Your task to perform on an android device: open app "Pluto TV - Live TV and Movies" (install if not already installed) Image 0: 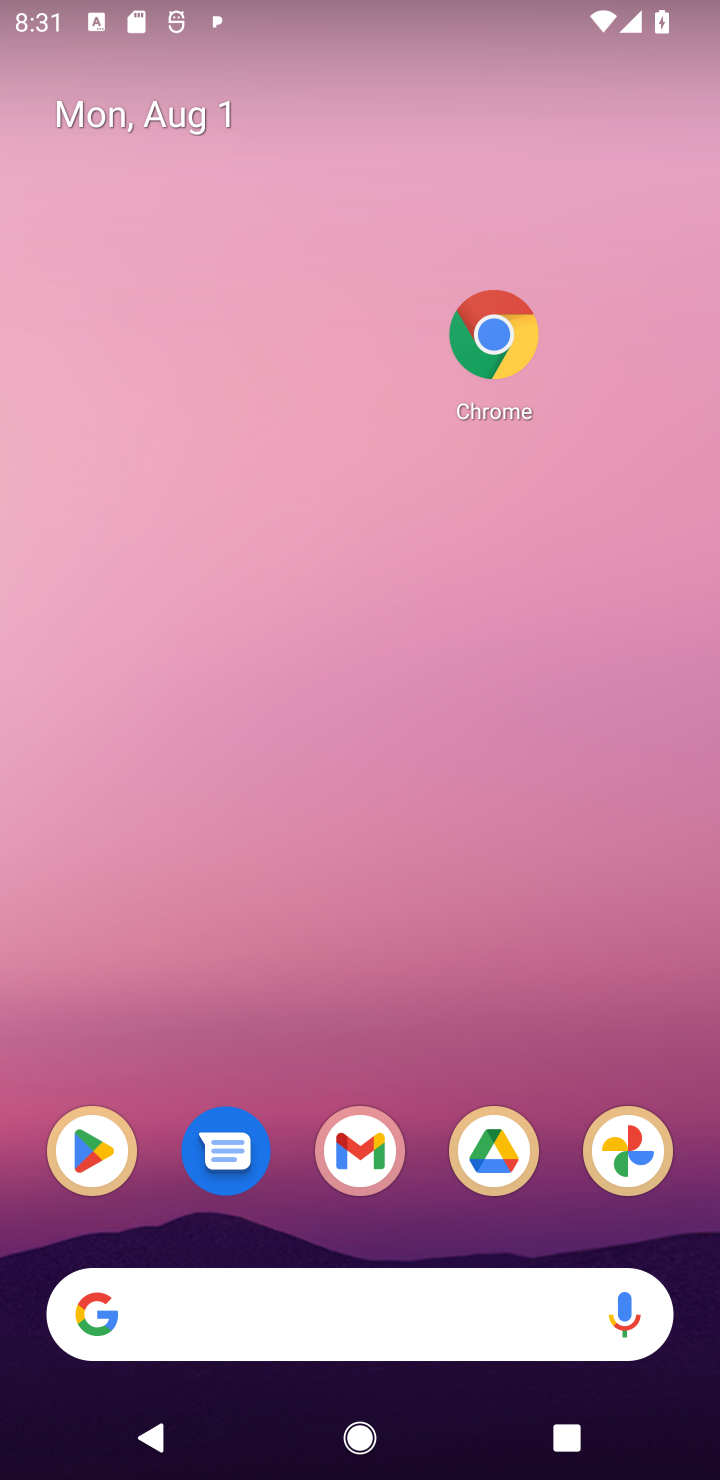
Step 0: click (93, 1167)
Your task to perform on an android device: open app "Pluto TV - Live TV and Movies" (install if not already installed) Image 1: 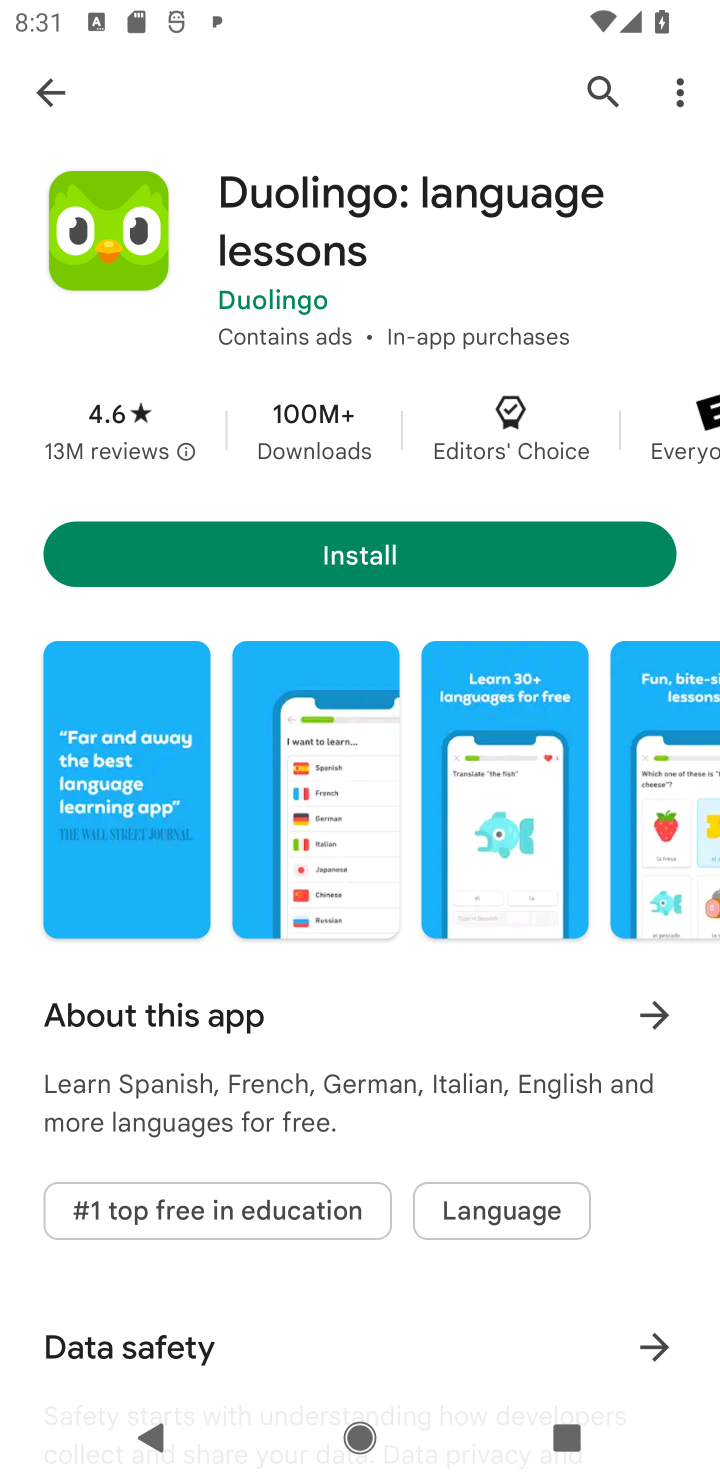
Step 1: click (598, 80)
Your task to perform on an android device: open app "Pluto TV - Live TV and Movies" (install if not already installed) Image 2: 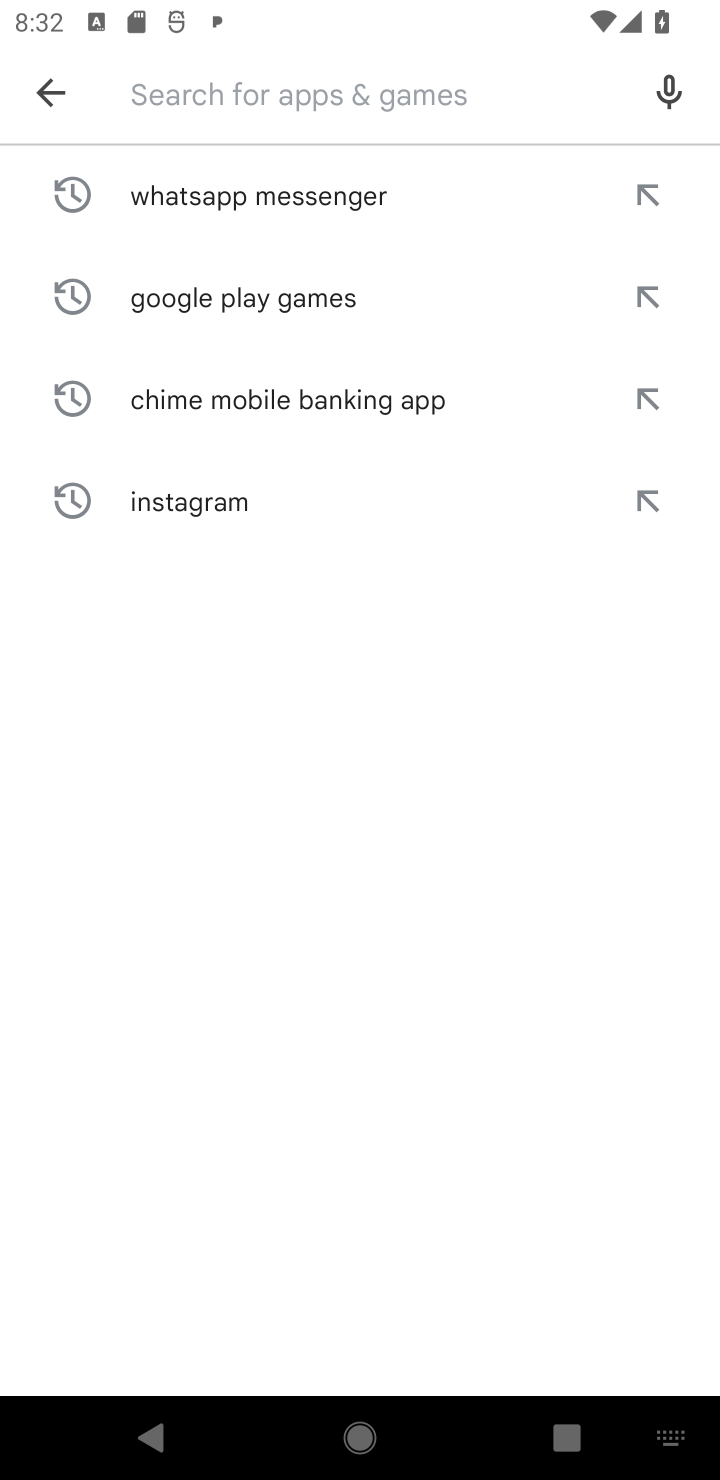
Step 2: type "Pluto TV - Live TV and Movies"
Your task to perform on an android device: open app "Pluto TV - Live TV and Movies" (install if not already installed) Image 3: 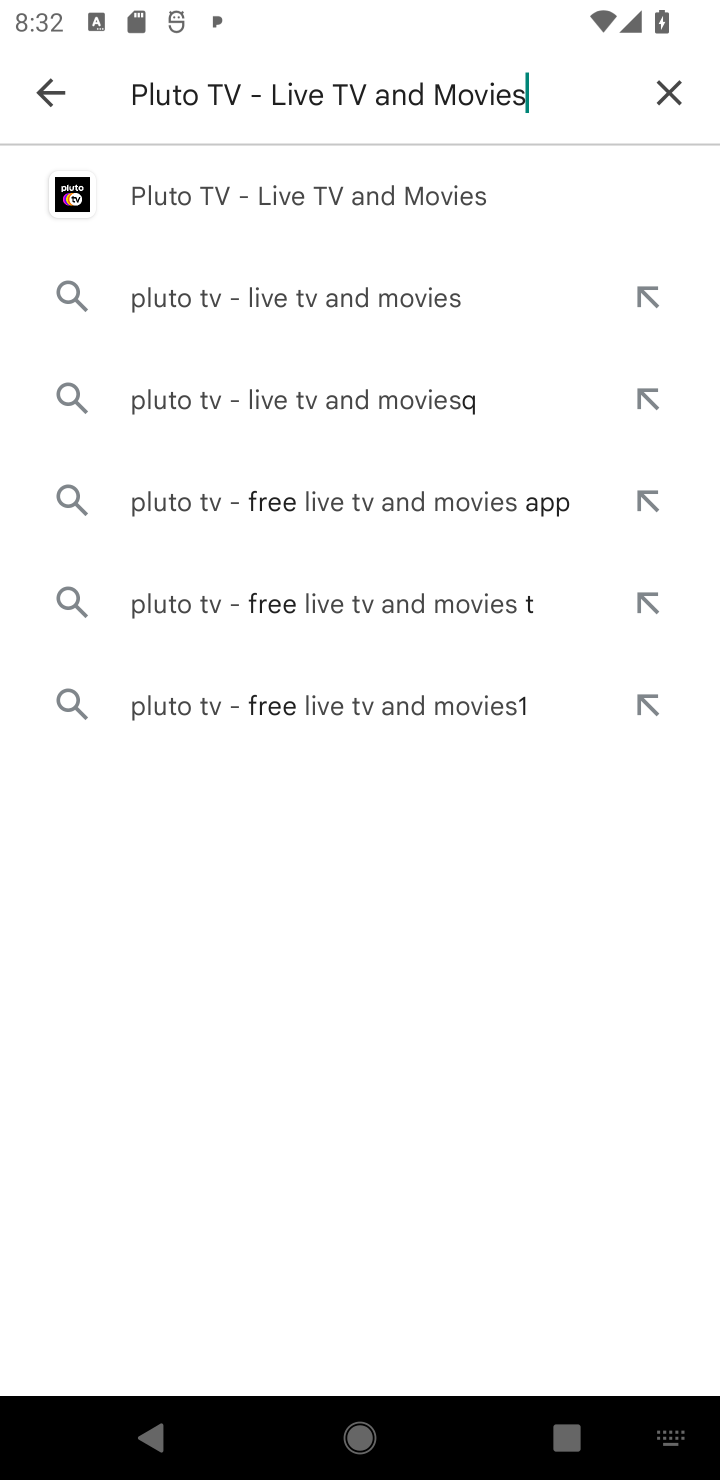
Step 3: click (233, 194)
Your task to perform on an android device: open app "Pluto TV - Live TV and Movies" (install if not already installed) Image 4: 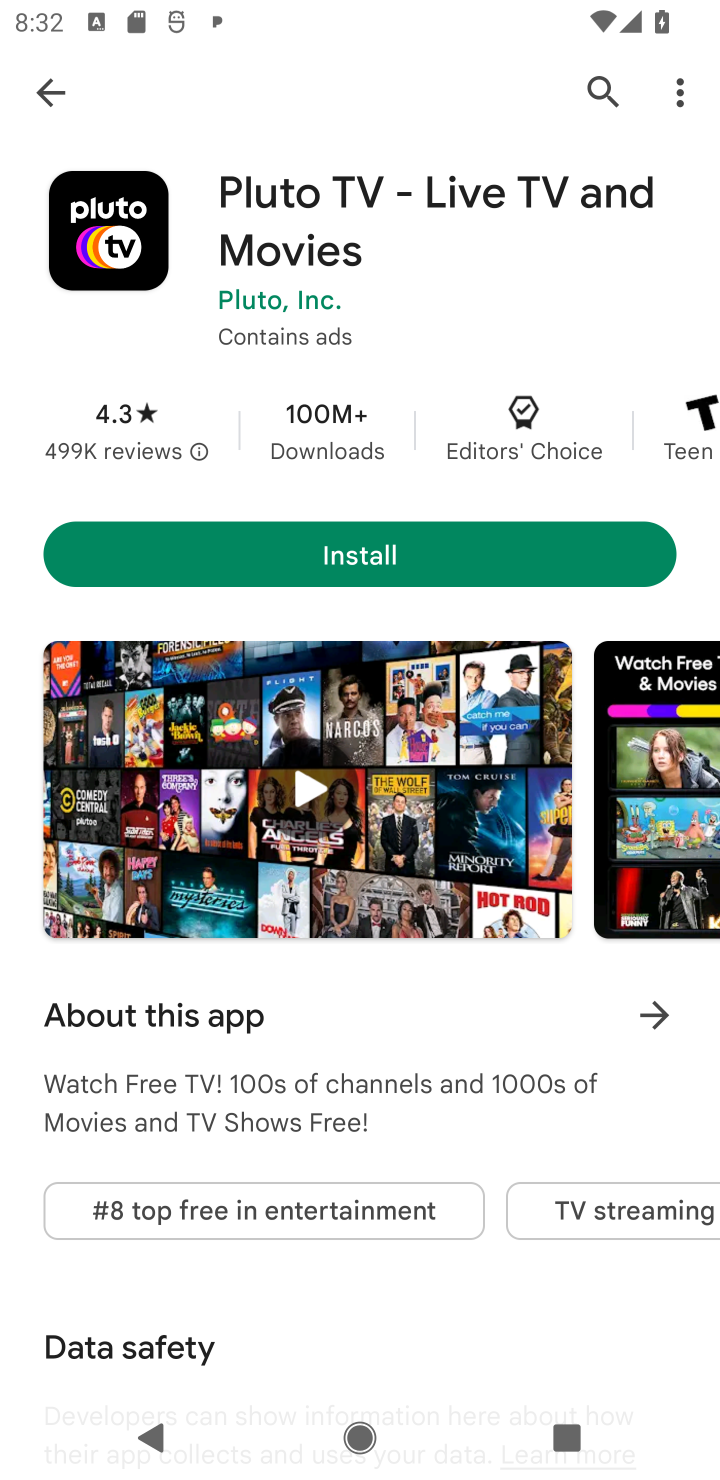
Step 4: click (319, 569)
Your task to perform on an android device: open app "Pluto TV - Live TV and Movies" (install if not already installed) Image 5: 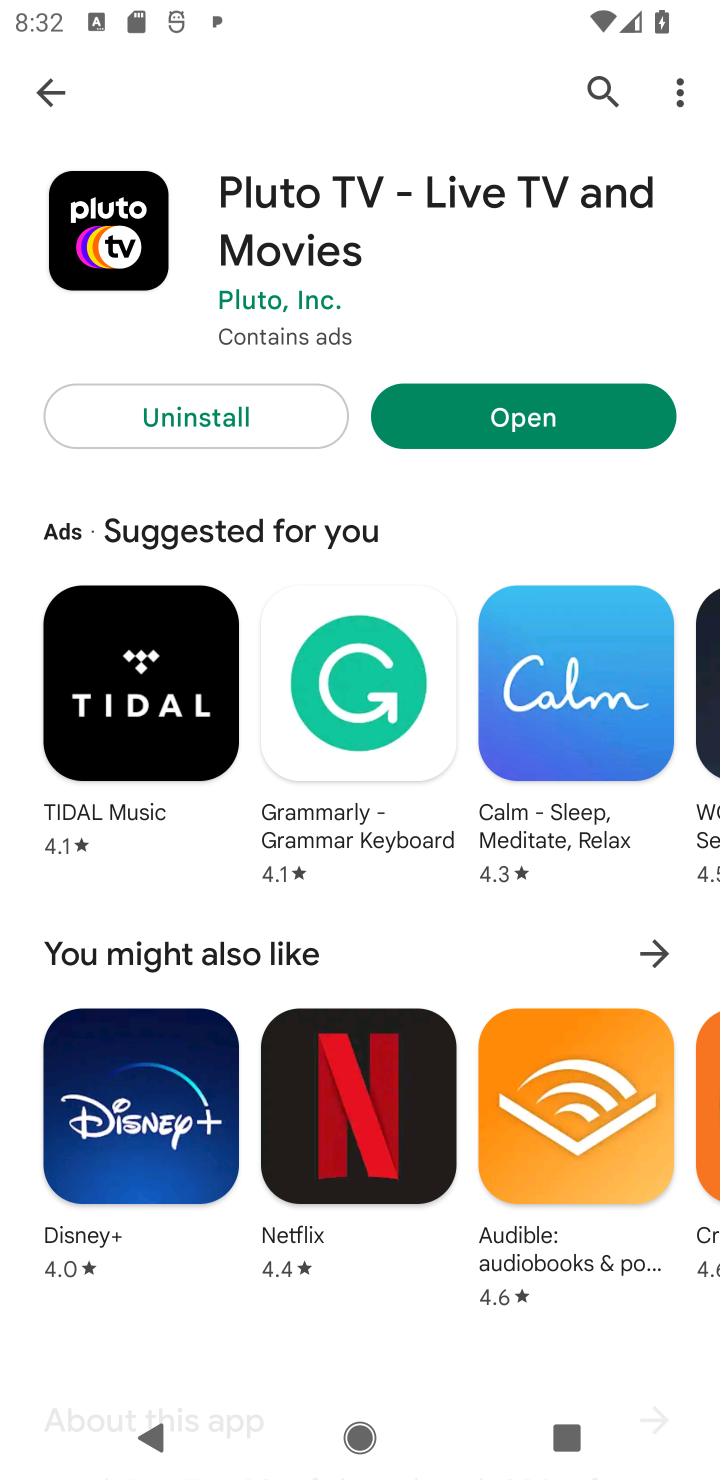
Step 5: click (533, 436)
Your task to perform on an android device: open app "Pluto TV - Live TV and Movies" (install if not already installed) Image 6: 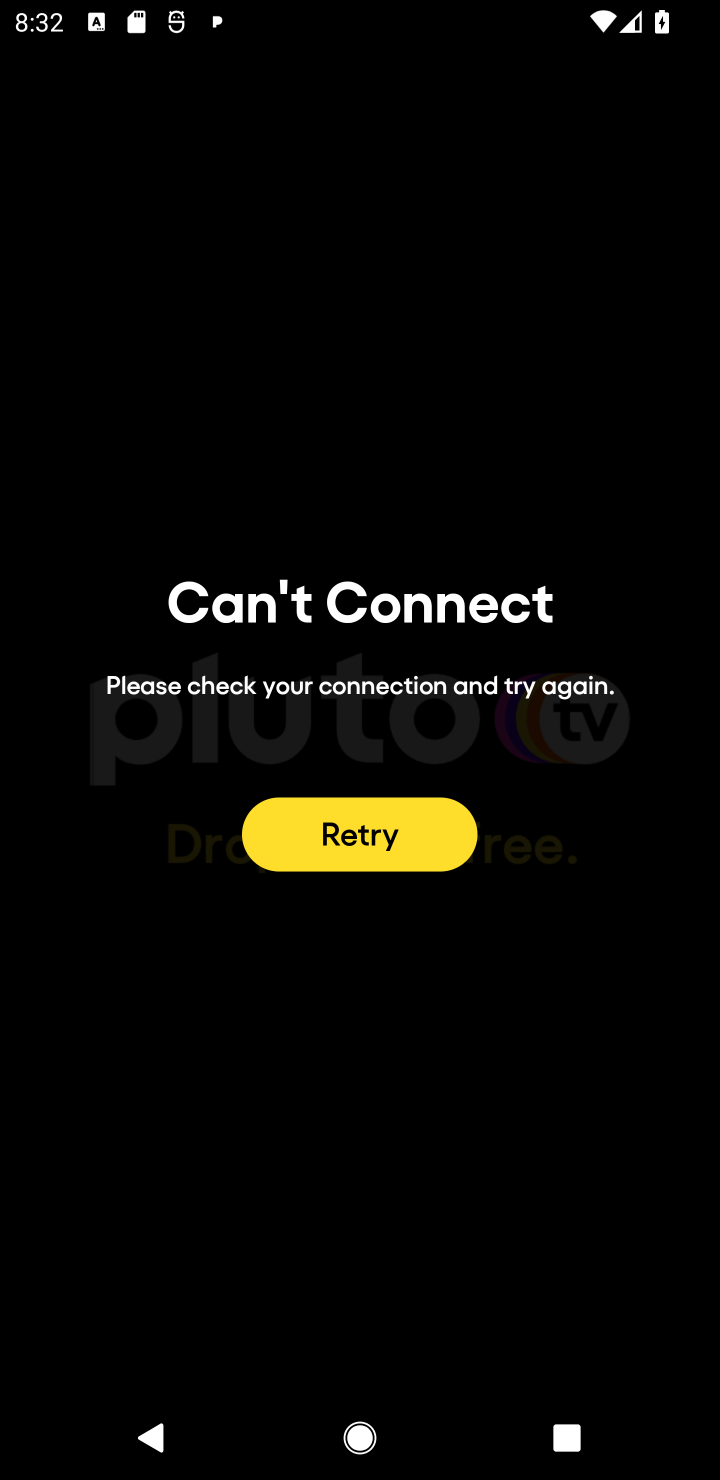
Step 6: task complete